Your task to perform on an android device: check out phone information Image 0: 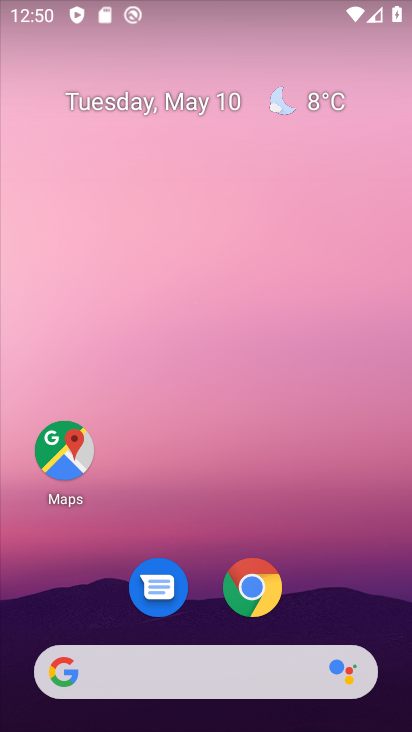
Step 0: drag from (333, 567) to (251, 88)
Your task to perform on an android device: check out phone information Image 1: 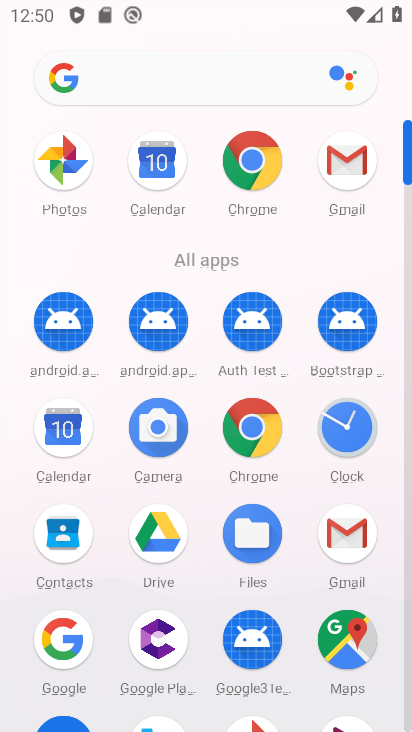
Step 1: drag from (214, 278) to (195, 0)
Your task to perform on an android device: check out phone information Image 2: 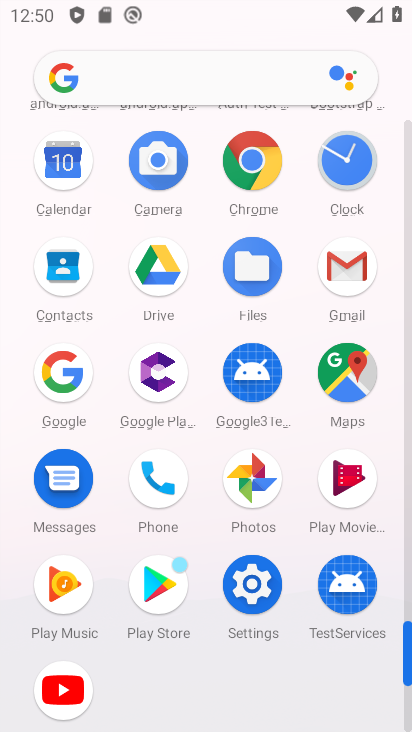
Step 2: click (257, 581)
Your task to perform on an android device: check out phone information Image 3: 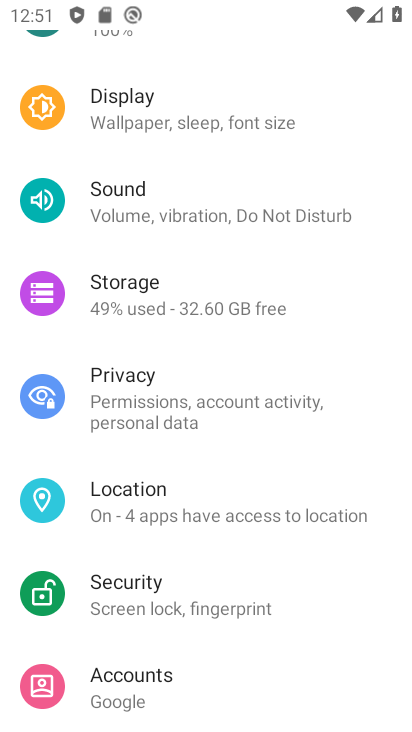
Step 3: drag from (175, 607) to (139, 343)
Your task to perform on an android device: check out phone information Image 4: 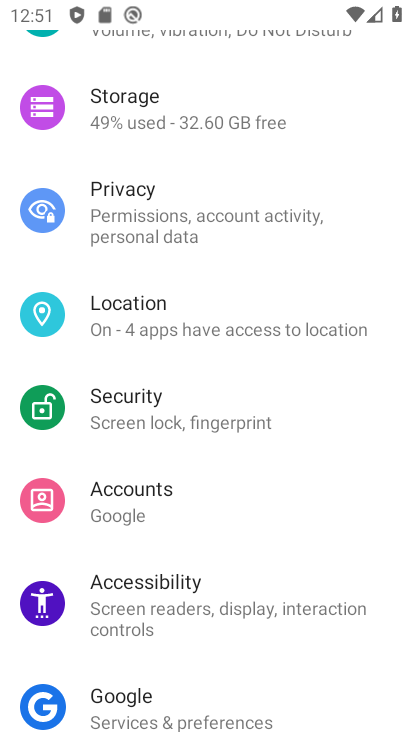
Step 4: drag from (184, 574) to (156, 298)
Your task to perform on an android device: check out phone information Image 5: 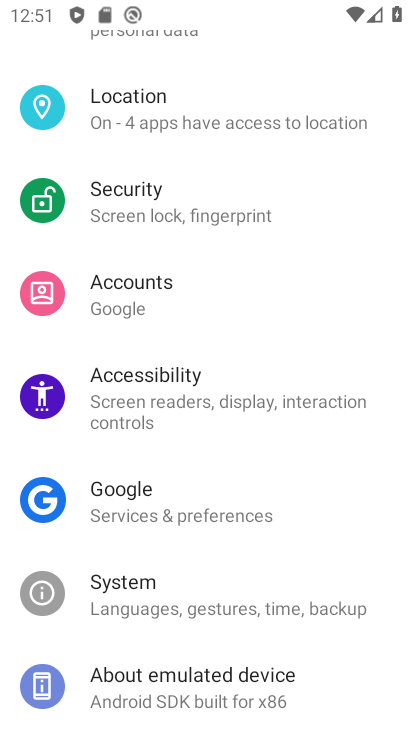
Step 5: drag from (196, 631) to (174, 339)
Your task to perform on an android device: check out phone information Image 6: 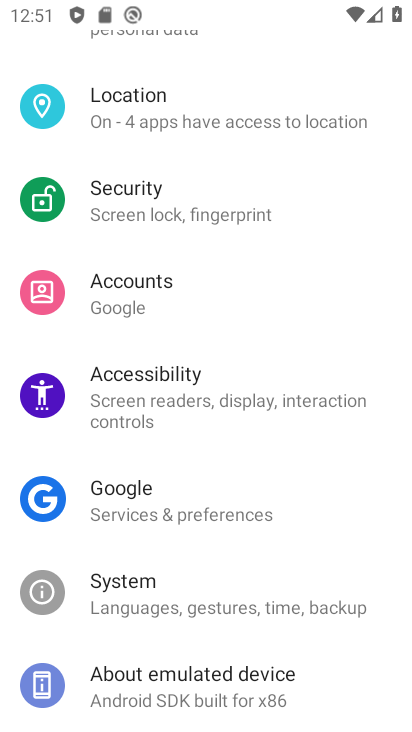
Step 6: click (131, 672)
Your task to perform on an android device: check out phone information Image 7: 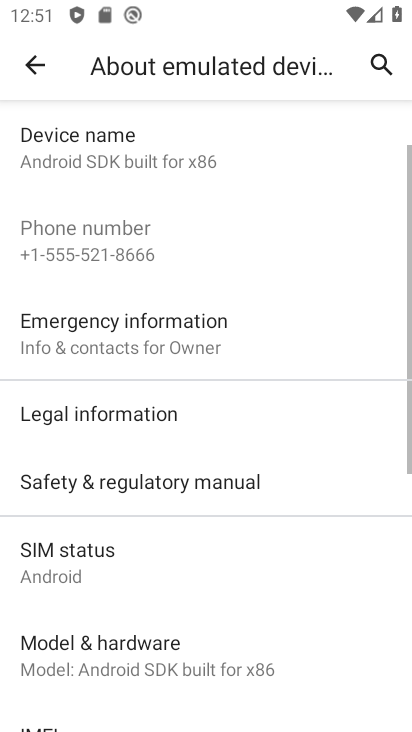
Step 7: task complete